Your task to perform on an android device: open a bookmark in the chrome app Image 0: 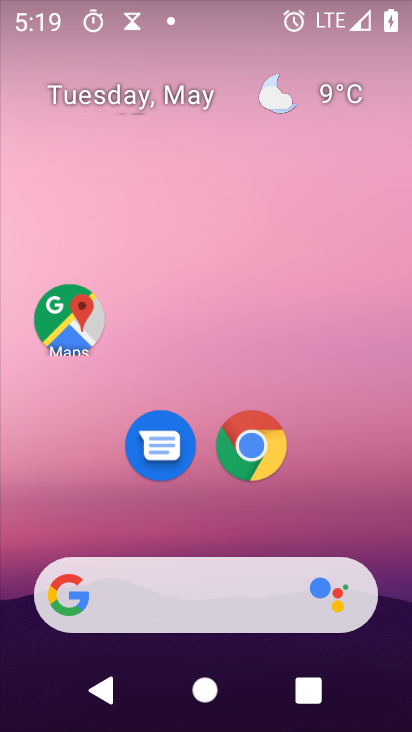
Step 0: drag from (267, 631) to (266, 24)
Your task to perform on an android device: open a bookmark in the chrome app Image 1: 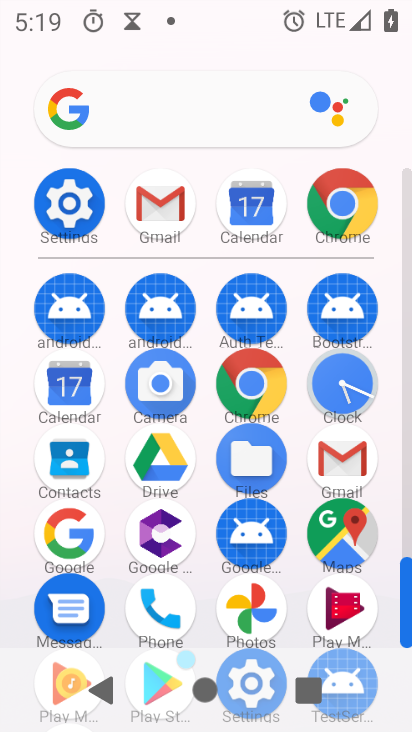
Step 1: click (271, 395)
Your task to perform on an android device: open a bookmark in the chrome app Image 2: 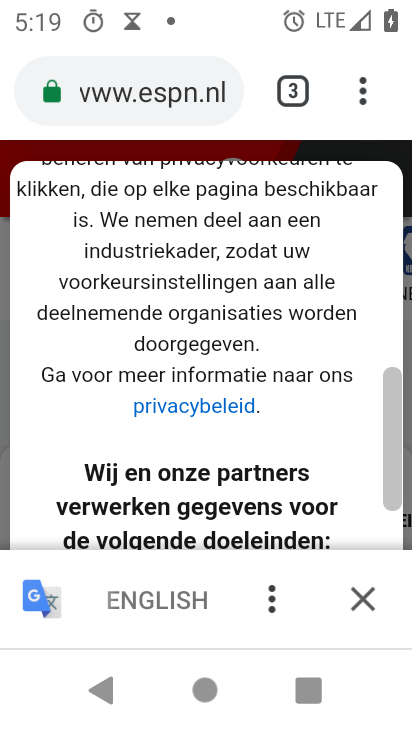
Step 2: task complete